Your task to perform on an android device: delete the emails in spam in the gmail app Image 0: 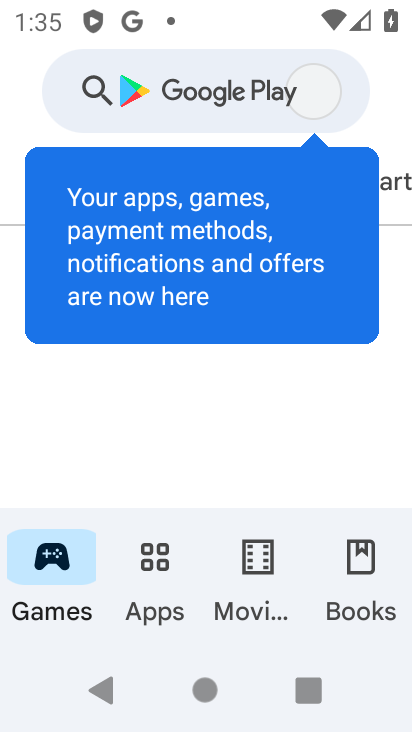
Step 0: press home button
Your task to perform on an android device: delete the emails in spam in the gmail app Image 1: 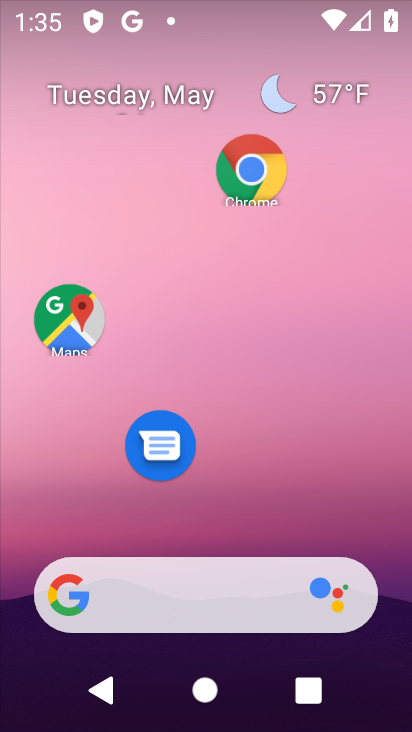
Step 1: drag from (229, 723) to (229, 69)
Your task to perform on an android device: delete the emails in spam in the gmail app Image 2: 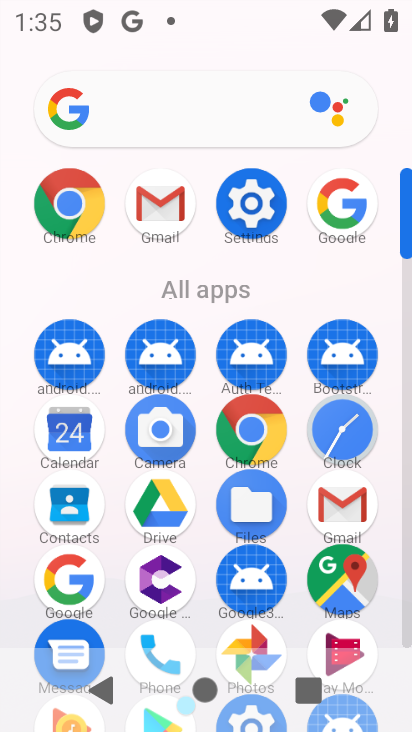
Step 2: click (344, 503)
Your task to perform on an android device: delete the emails in spam in the gmail app Image 3: 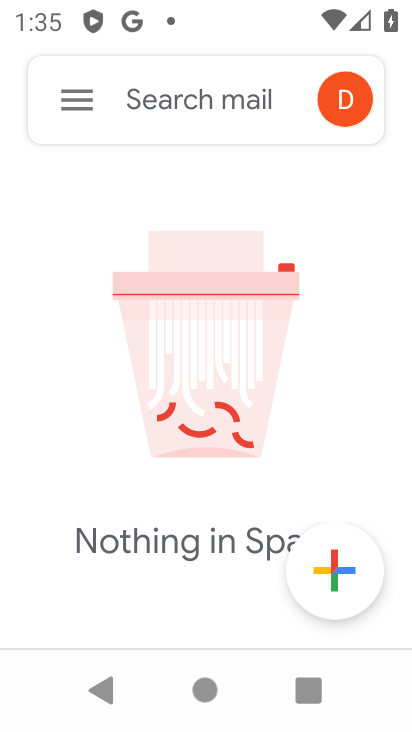
Step 3: task complete